Your task to perform on an android device: turn on improve location accuracy Image 0: 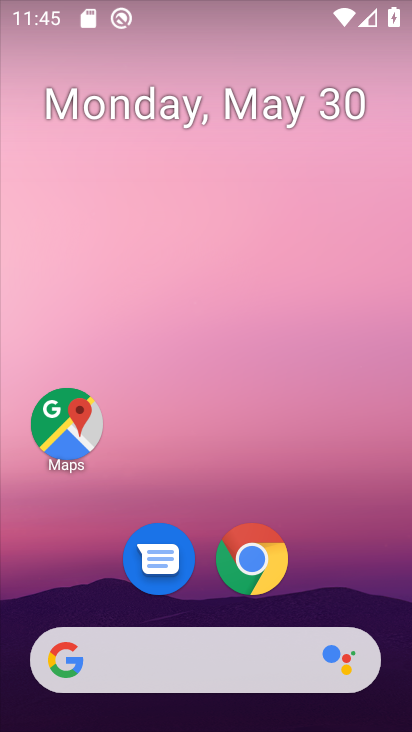
Step 0: drag from (364, 565) to (265, 73)
Your task to perform on an android device: turn on improve location accuracy Image 1: 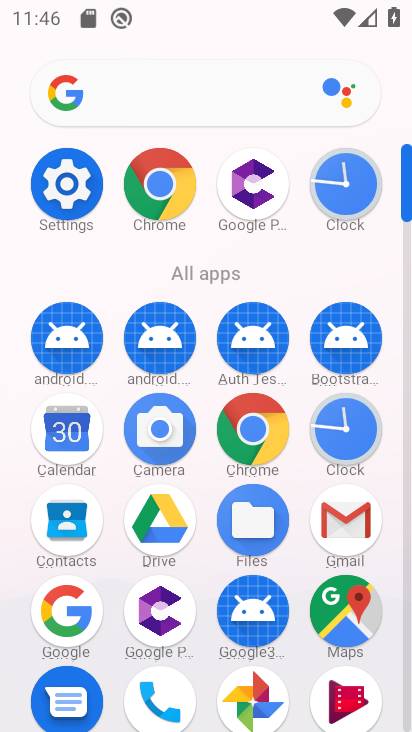
Step 1: click (74, 180)
Your task to perform on an android device: turn on improve location accuracy Image 2: 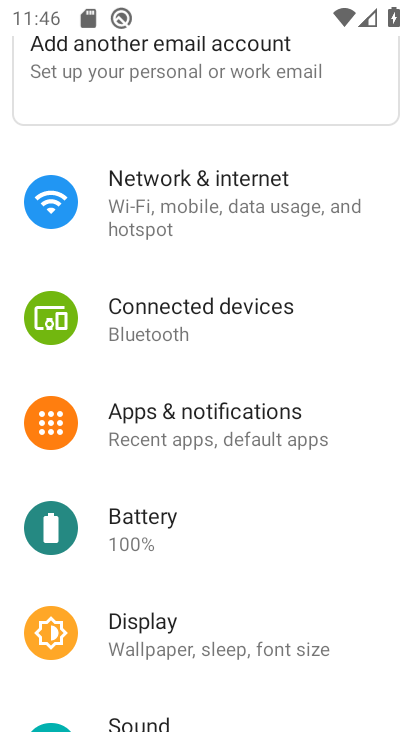
Step 2: drag from (218, 352) to (219, 161)
Your task to perform on an android device: turn on improve location accuracy Image 3: 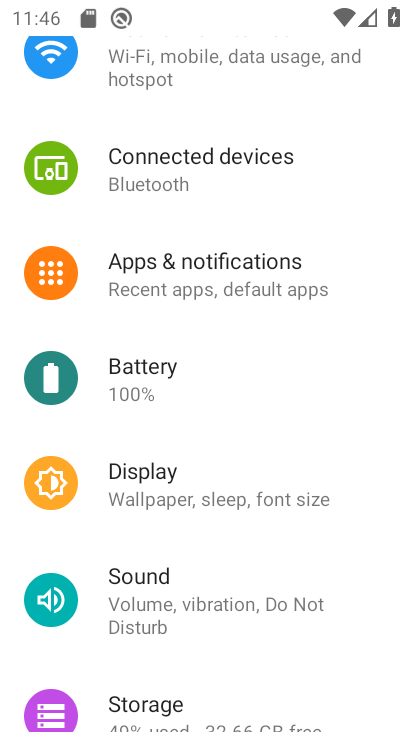
Step 3: drag from (226, 529) to (219, 135)
Your task to perform on an android device: turn on improve location accuracy Image 4: 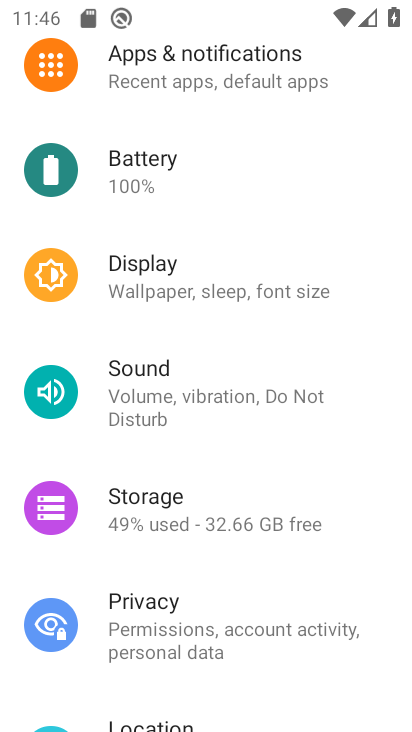
Step 4: drag from (190, 598) to (192, 129)
Your task to perform on an android device: turn on improve location accuracy Image 5: 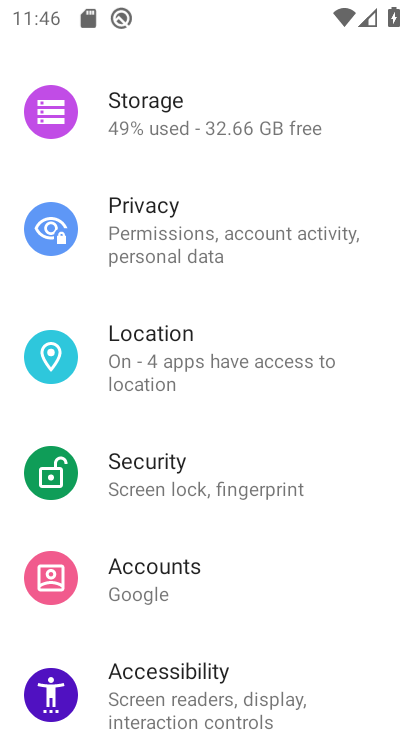
Step 5: click (252, 354)
Your task to perform on an android device: turn on improve location accuracy Image 6: 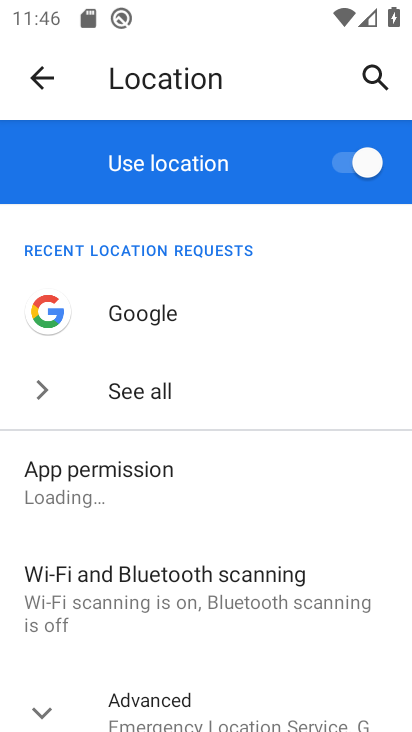
Step 6: drag from (243, 684) to (191, 227)
Your task to perform on an android device: turn on improve location accuracy Image 7: 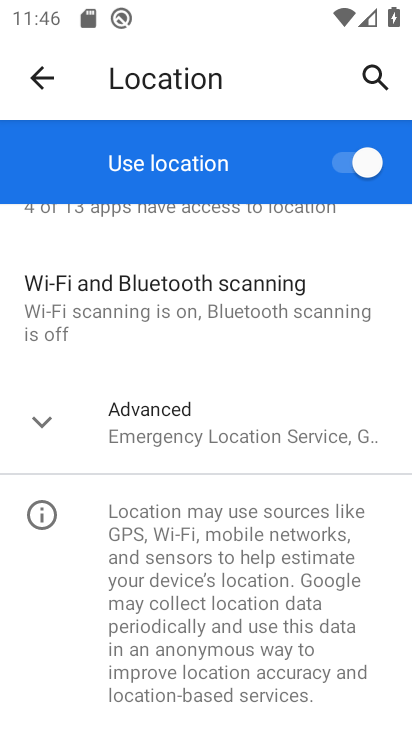
Step 7: click (249, 435)
Your task to perform on an android device: turn on improve location accuracy Image 8: 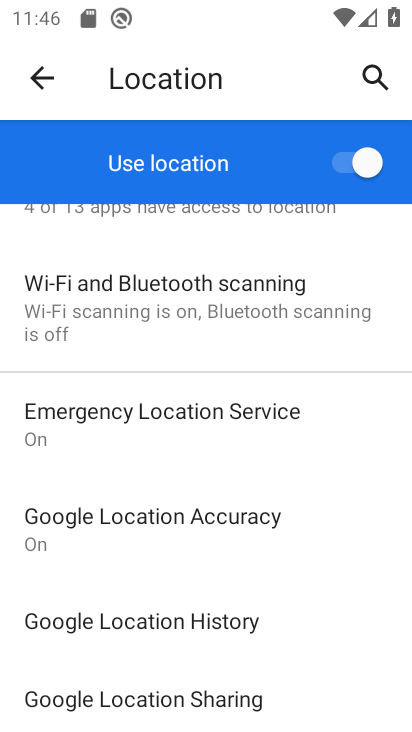
Step 8: click (276, 550)
Your task to perform on an android device: turn on improve location accuracy Image 9: 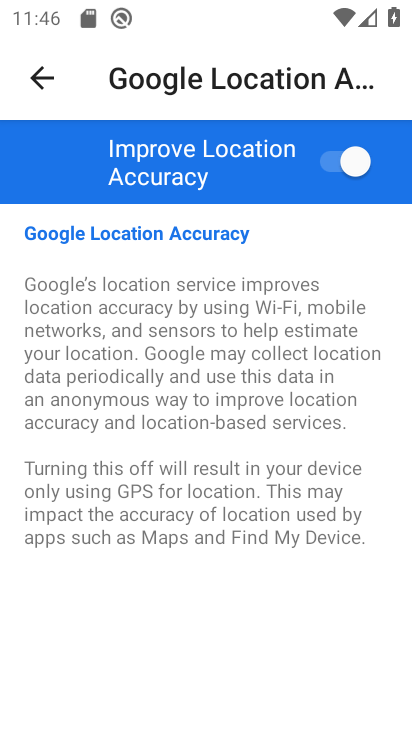
Step 9: task complete